Your task to perform on an android device: delete a single message in the gmail app Image 0: 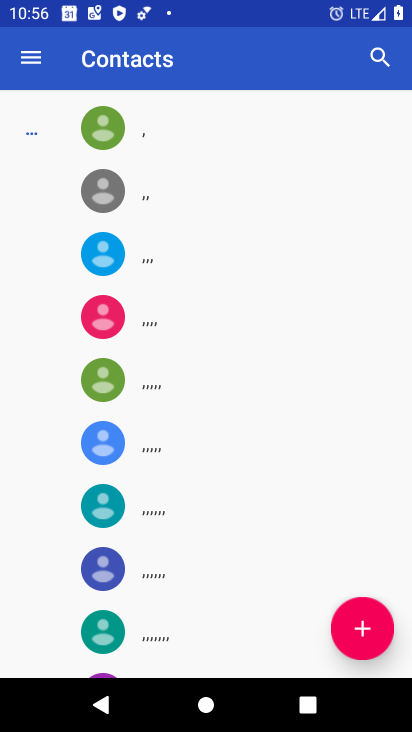
Step 0: press home button
Your task to perform on an android device: delete a single message in the gmail app Image 1: 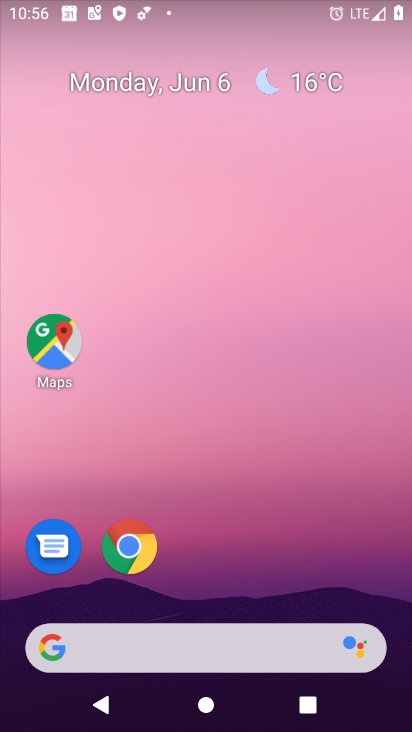
Step 1: drag from (207, 587) to (211, 0)
Your task to perform on an android device: delete a single message in the gmail app Image 2: 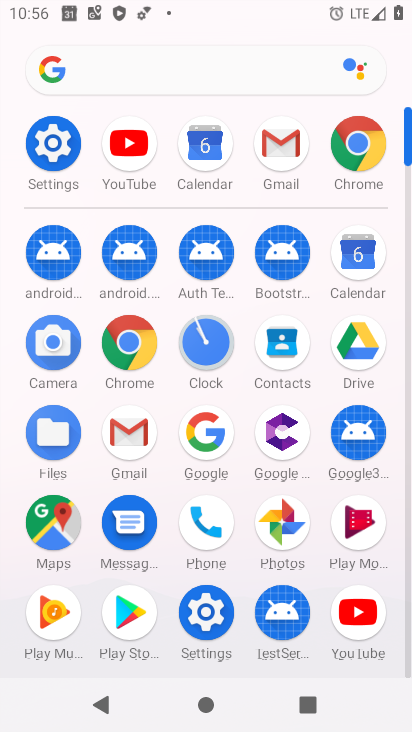
Step 2: click (125, 440)
Your task to perform on an android device: delete a single message in the gmail app Image 3: 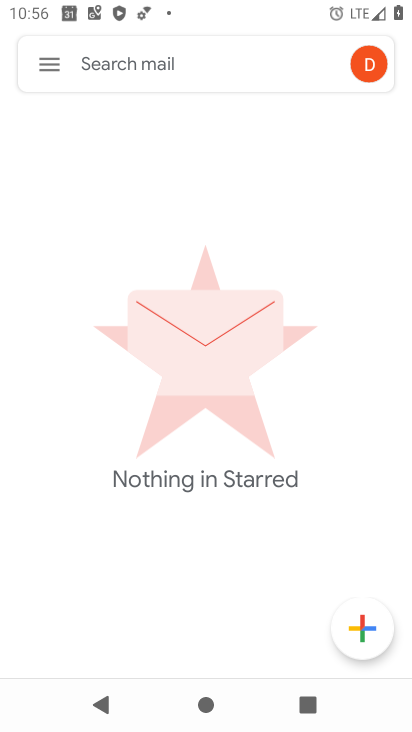
Step 3: click (39, 60)
Your task to perform on an android device: delete a single message in the gmail app Image 4: 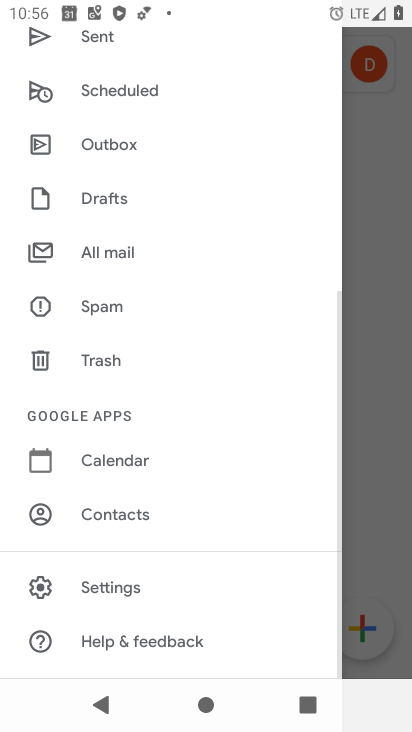
Step 4: click (117, 256)
Your task to perform on an android device: delete a single message in the gmail app Image 5: 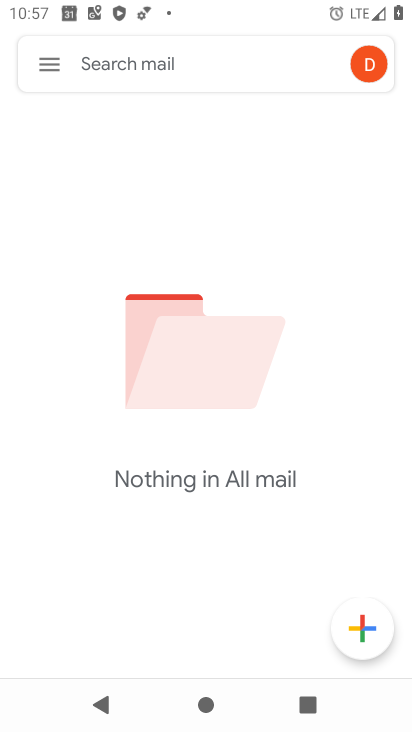
Step 5: task complete